Your task to perform on an android device: manage bookmarks in the chrome app Image 0: 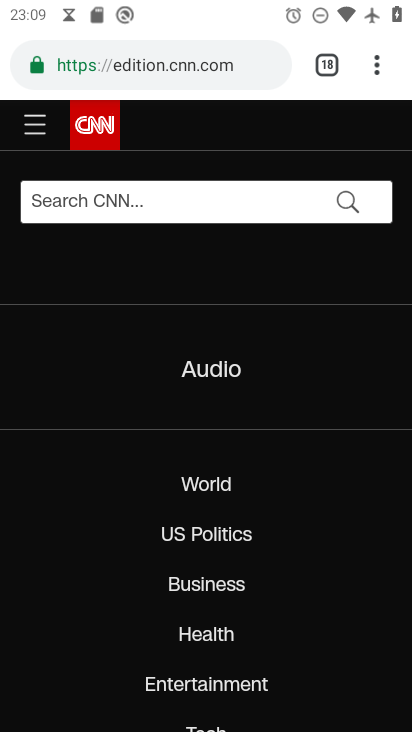
Step 0: press home button
Your task to perform on an android device: manage bookmarks in the chrome app Image 1: 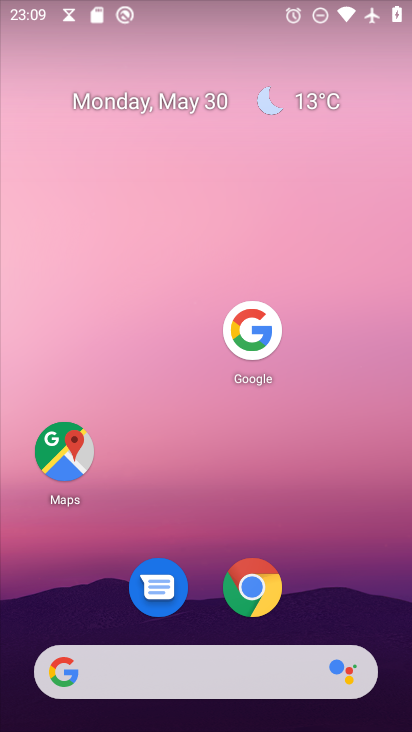
Step 1: click (260, 580)
Your task to perform on an android device: manage bookmarks in the chrome app Image 2: 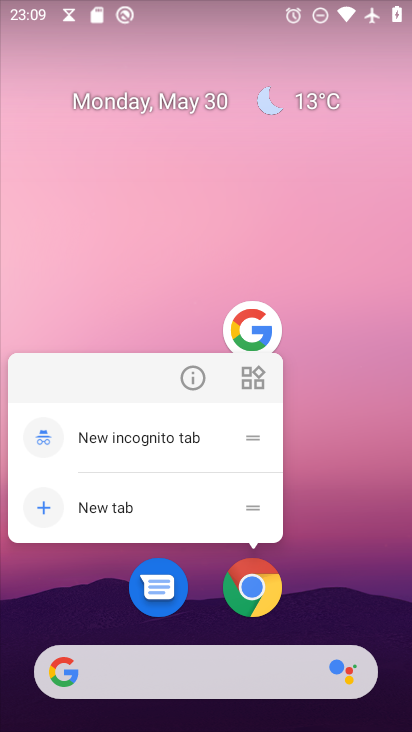
Step 2: click (252, 600)
Your task to perform on an android device: manage bookmarks in the chrome app Image 3: 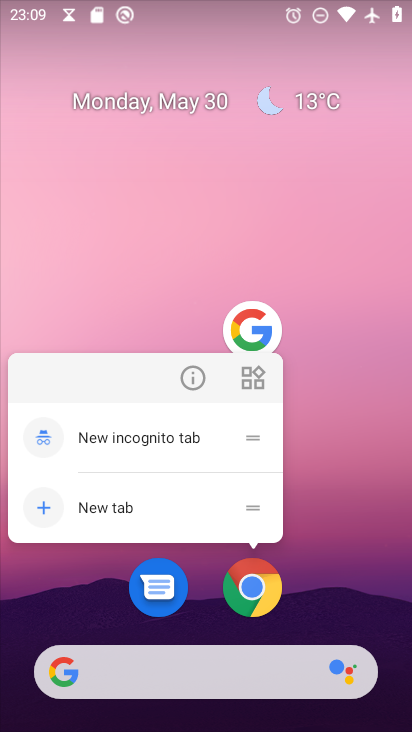
Step 3: click (254, 590)
Your task to perform on an android device: manage bookmarks in the chrome app Image 4: 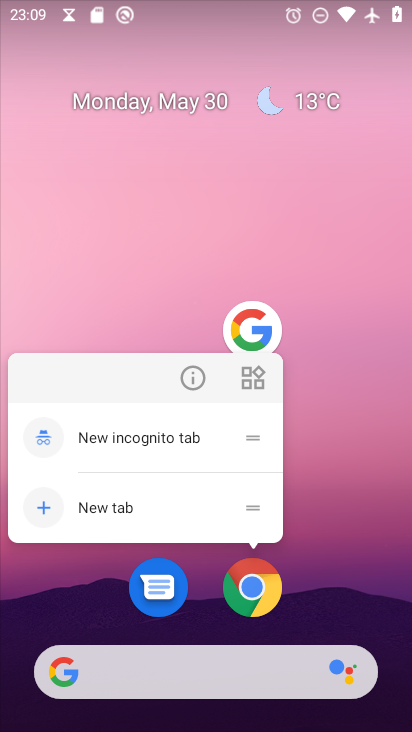
Step 4: click (254, 590)
Your task to perform on an android device: manage bookmarks in the chrome app Image 5: 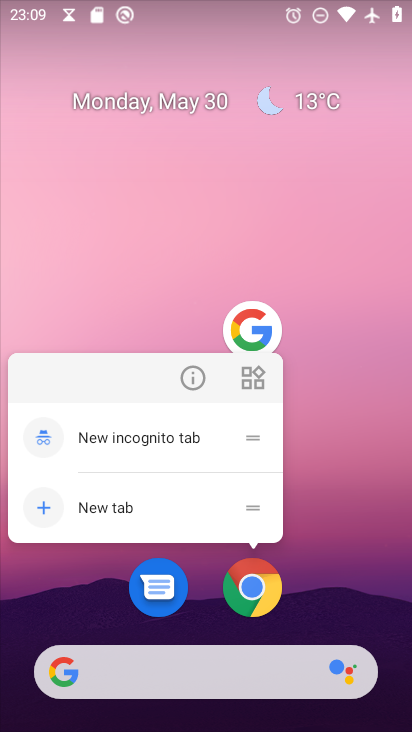
Step 5: click (261, 591)
Your task to perform on an android device: manage bookmarks in the chrome app Image 6: 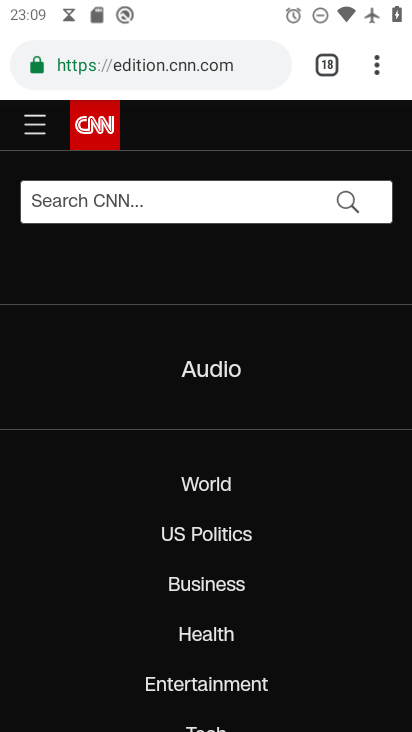
Step 6: drag from (375, 67) to (186, 243)
Your task to perform on an android device: manage bookmarks in the chrome app Image 7: 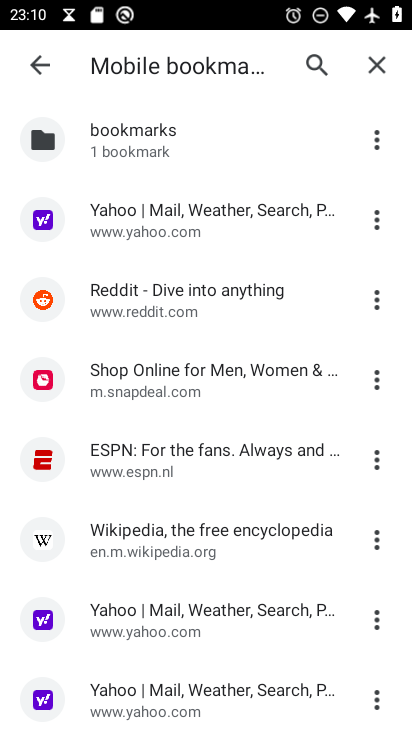
Step 7: click (373, 213)
Your task to perform on an android device: manage bookmarks in the chrome app Image 8: 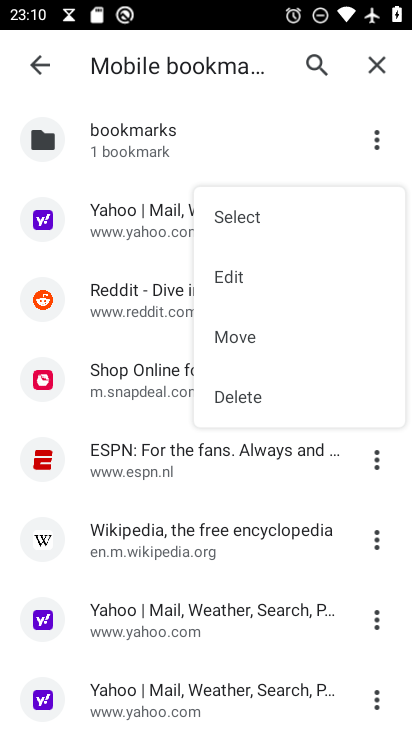
Step 8: click (252, 333)
Your task to perform on an android device: manage bookmarks in the chrome app Image 9: 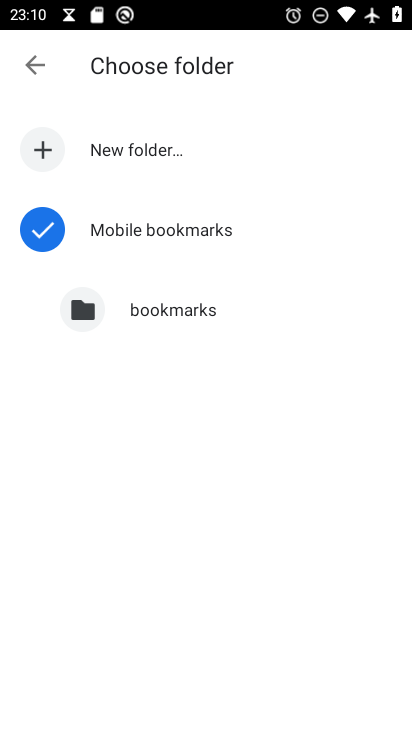
Step 9: click (144, 304)
Your task to perform on an android device: manage bookmarks in the chrome app Image 10: 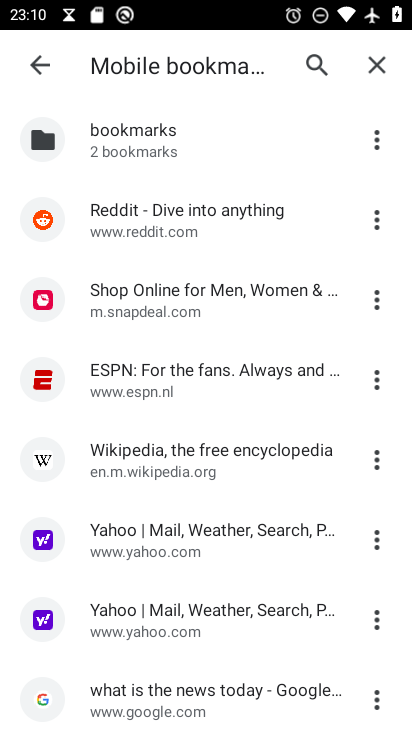
Step 10: task complete